Your task to perform on an android device: Show me the alarms in the clock app Image 0: 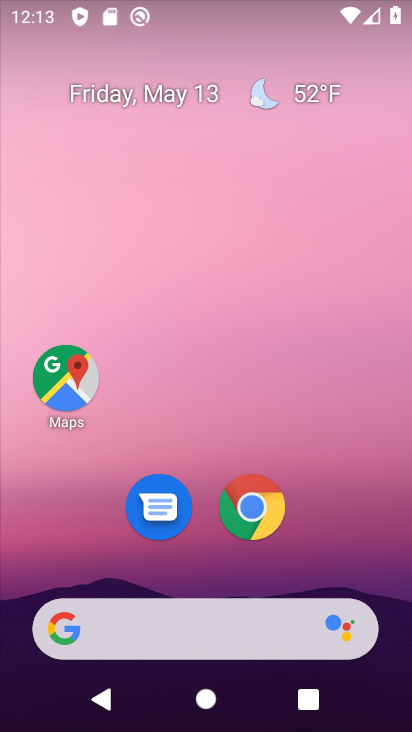
Step 0: drag from (238, 586) to (255, 282)
Your task to perform on an android device: Show me the alarms in the clock app Image 1: 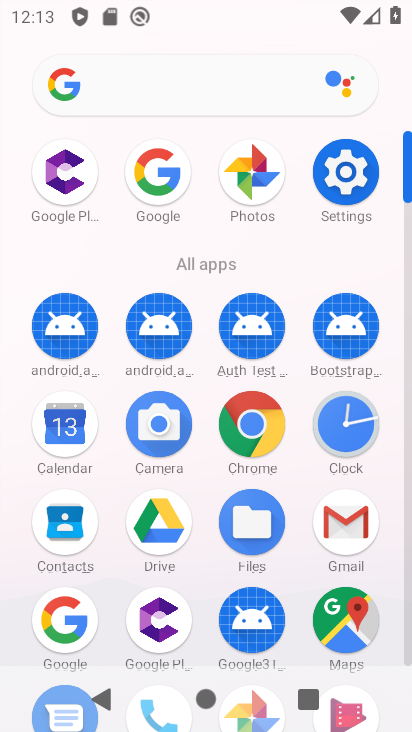
Step 1: click (347, 432)
Your task to perform on an android device: Show me the alarms in the clock app Image 2: 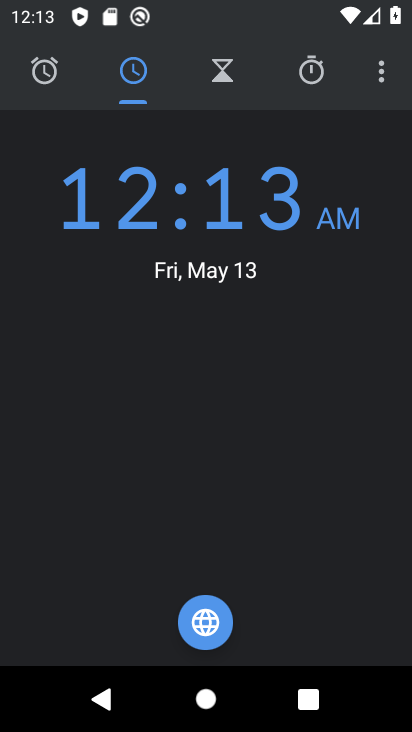
Step 2: click (380, 75)
Your task to perform on an android device: Show me the alarms in the clock app Image 3: 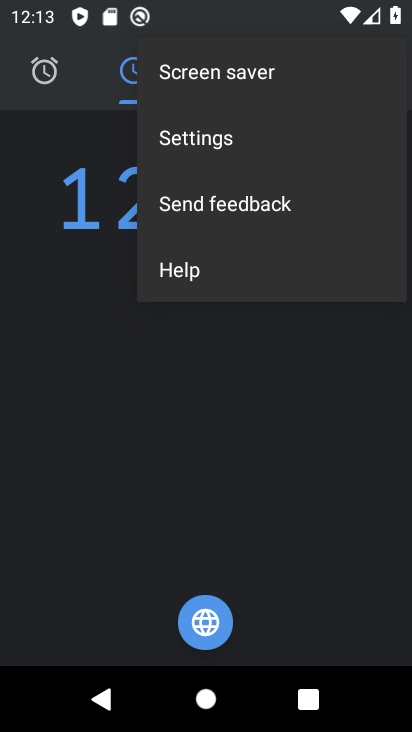
Step 3: click (87, 422)
Your task to perform on an android device: Show me the alarms in the clock app Image 4: 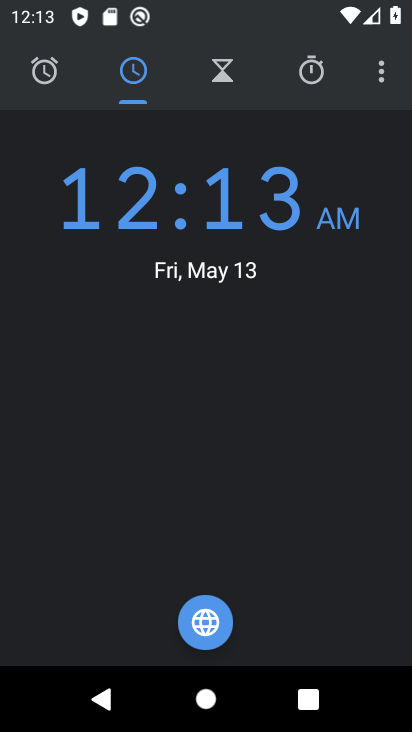
Step 4: click (53, 69)
Your task to perform on an android device: Show me the alarms in the clock app Image 5: 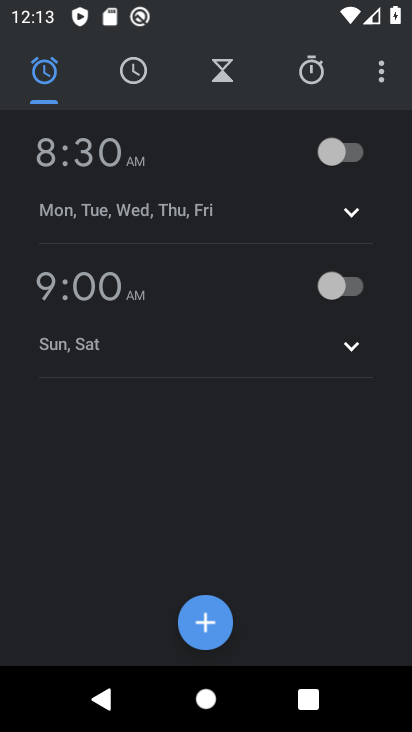
Step 5: task complete